Your task to perform on an android device: Go to battery settings Image 0: 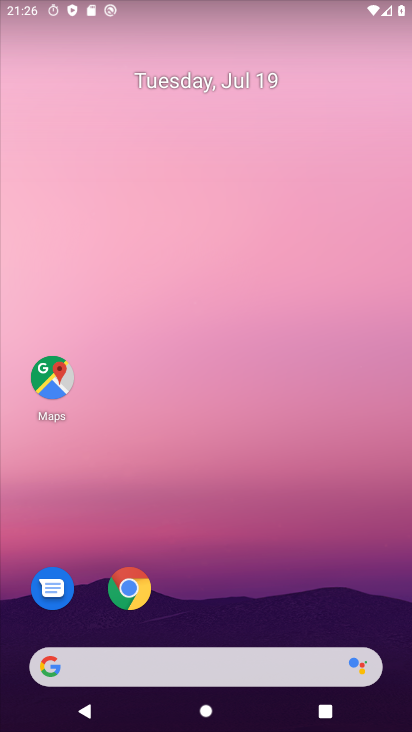
Step 0: press home button
Your task to perform on an android device: Go to battery settings Image 1: 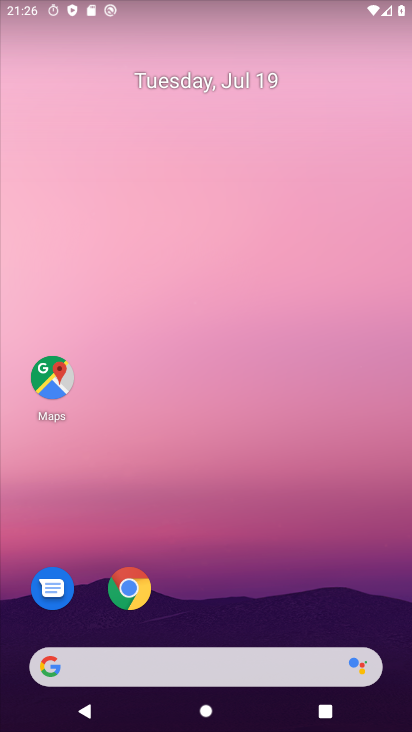
Step 1: drag from (218, 612) to (260, 10)
Your task to perform on an android device: Go to battery settings Image 2: 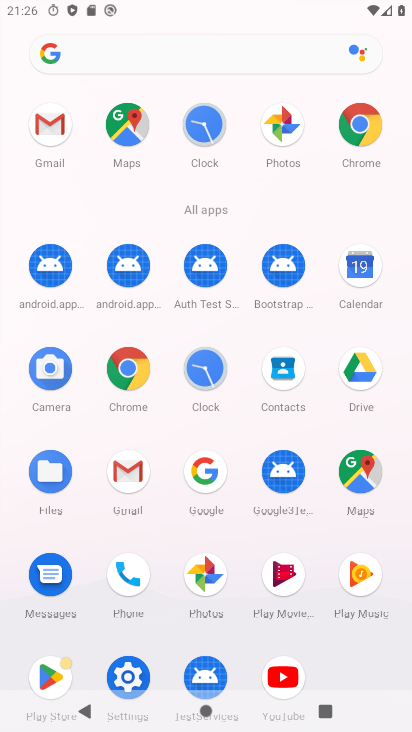
Step 2: click (125, 669)
Your task to perform on an android device: Go to battery settings Image 3: 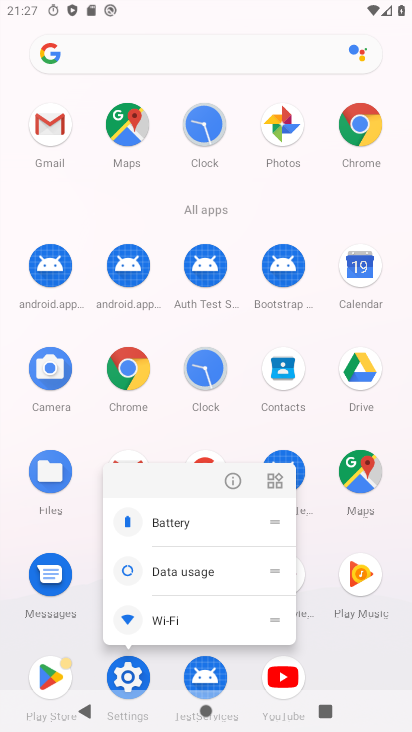
Step 3: click (124, 668)
Your task to perform on an android device: Go to battery settings Image 4: 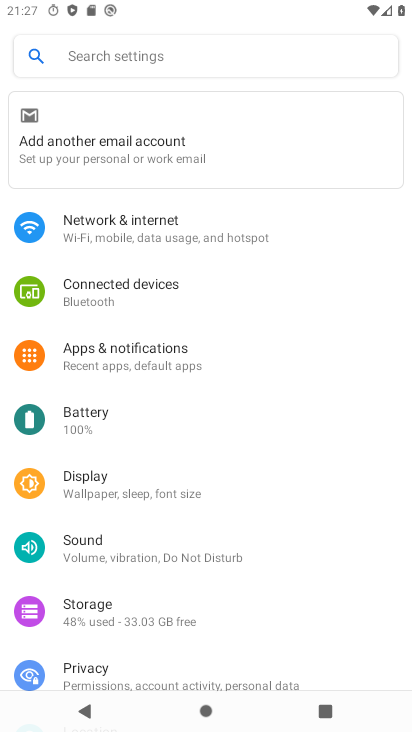
Step 4: click (106, 423)
Your task to perform on an android device: Go to battery settings Image 5: 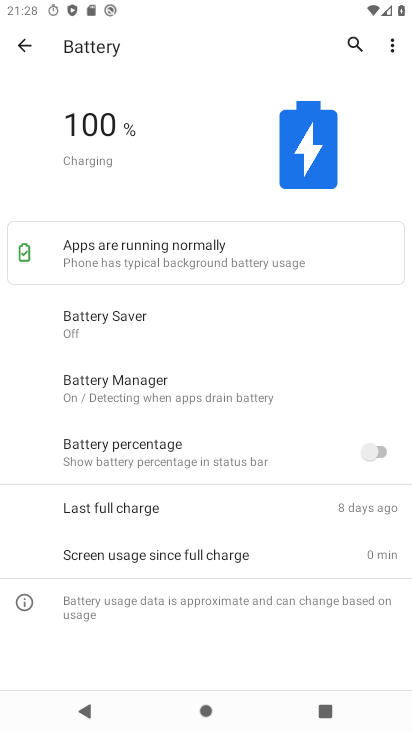
Step 5: task complete